Your task to perform on an android device: turn off priority inbox in the gmail app Image 0: 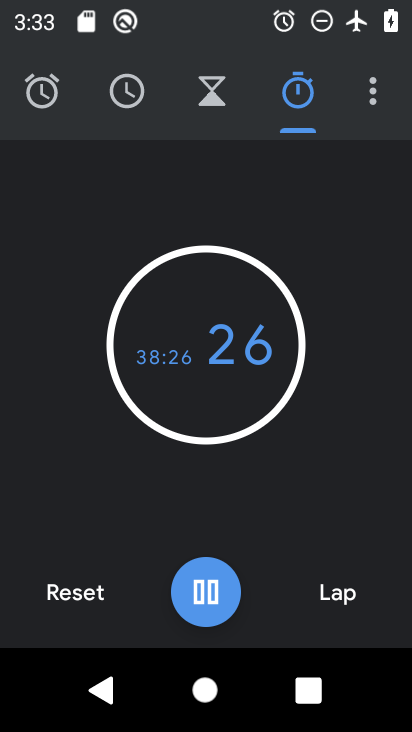
Step 0: press home button
Your task to perform on an android device: turn off priority inbox in the gmail app Image 1: 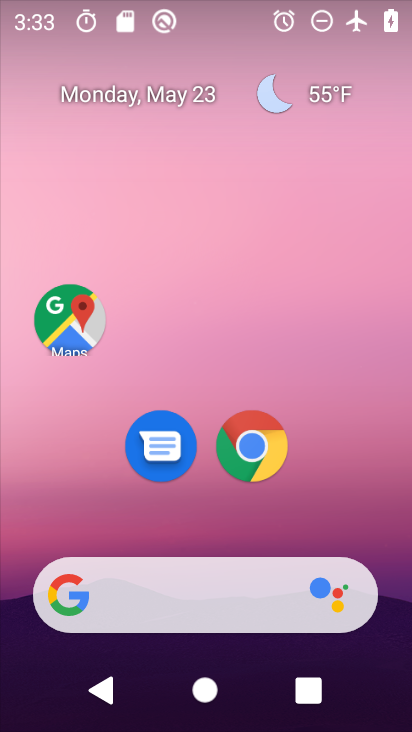
Step 1: drag from (184, 537) to (182, 153)
Your task to perform on an android device: turn off priority inbox in the gmail app Image 2: 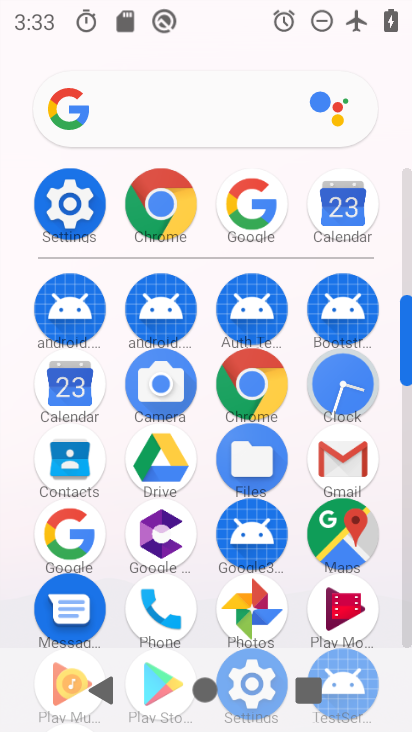
Step 2: click (320, 452)
Your task to perform on an android device: turn off priority inbox in the gmail app Image 3: 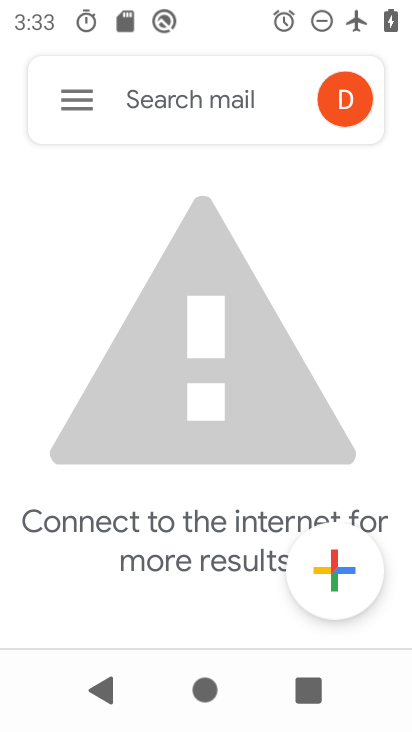
Step 3: click (88, 111)
Your task to perform on an android device: turn off priority inbox in the gmail app Image 4: 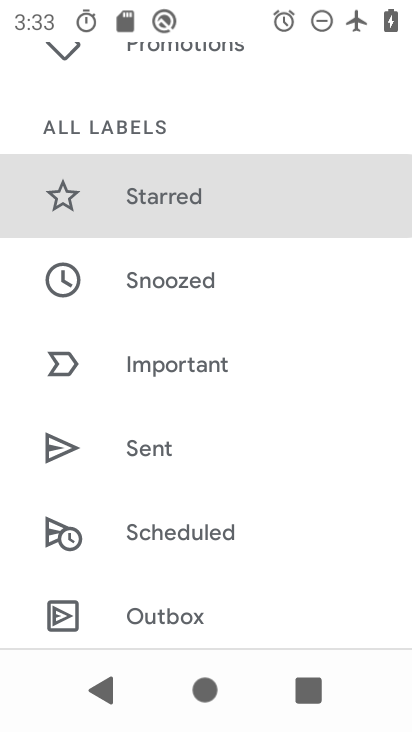
Step 4: drag from (237, 568) to (200, 274)
Your task to perform on an android device: turn off priority inbox in the gmail app Image 5: 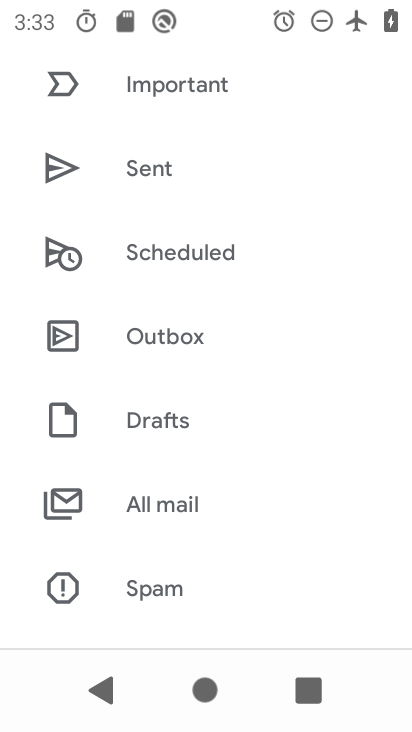
Step 5: drag from (224, 583) to (194, 319)
Your task to perform on an android device: turn off priority inbox in the gmail app Image 6: 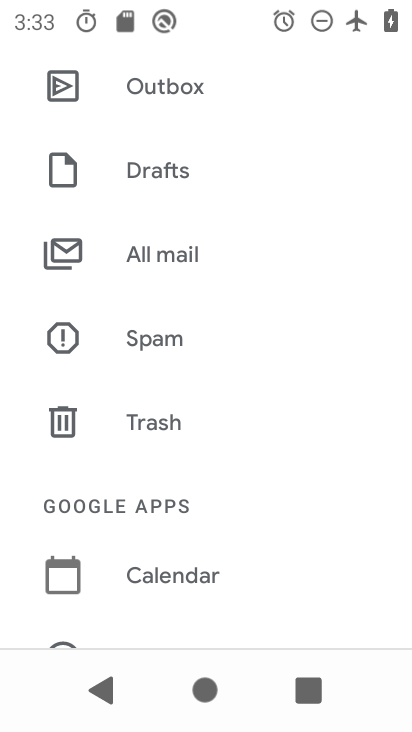
Step 6: drag from (217, 544) to (180, 306)
Your task to perform on an android device: turn off priority inbox in the gmail app Image 7: 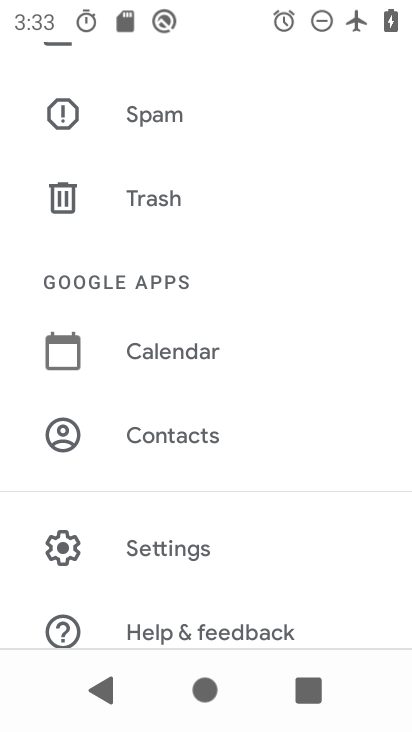
Step 7: click (193, 550)
Your task to perform on an android device: turn off priority inbox in the gmail app Image 8: 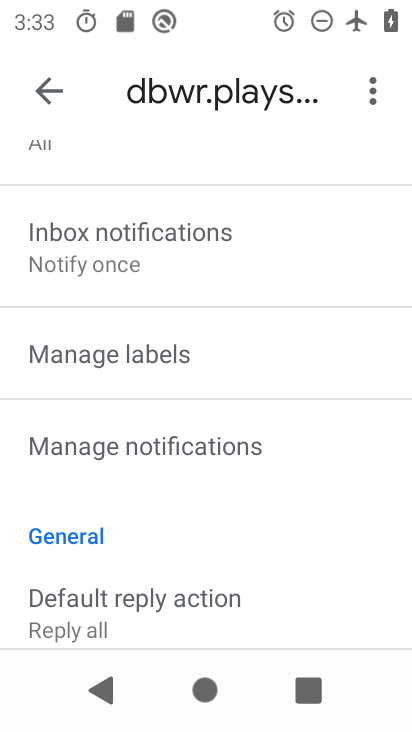
Step 8: drag from (185, 241) to (241, 485)
Your task to perform on an android device: turn off priority inbox in the gmail app Image 9: 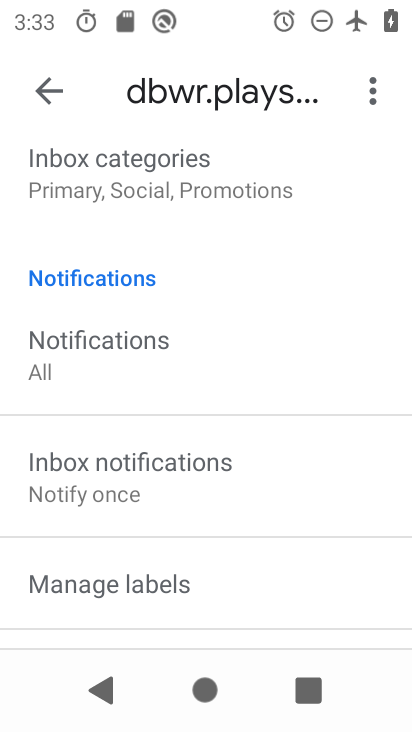
Step 9: drag from (200, 562) to (200, 454)
Your task to perform on an android device: turn off priority inbox in the gmail app Image 10: 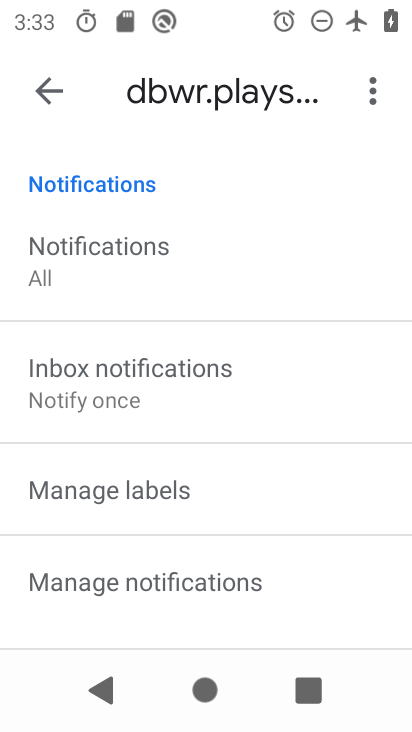
Step 10: drag from (205, 228) to (221, 545)
Your task to perform on an android device: turn off priority inbox in the gmail app Image 11: 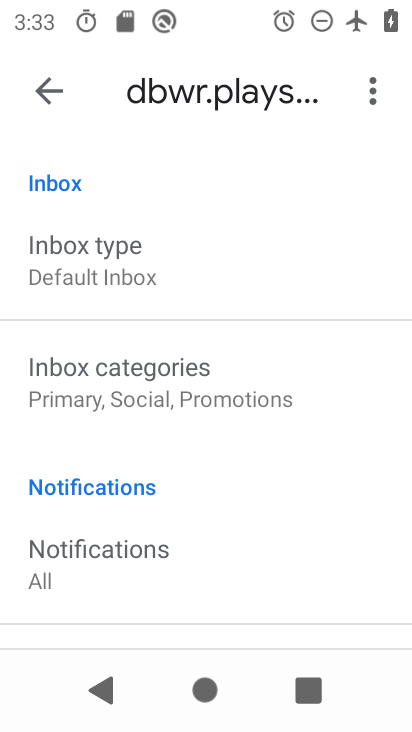
Step 11: click (133, 280)
Your task to perform on an android device: turn off priority inbox in the gmail app Image 12: 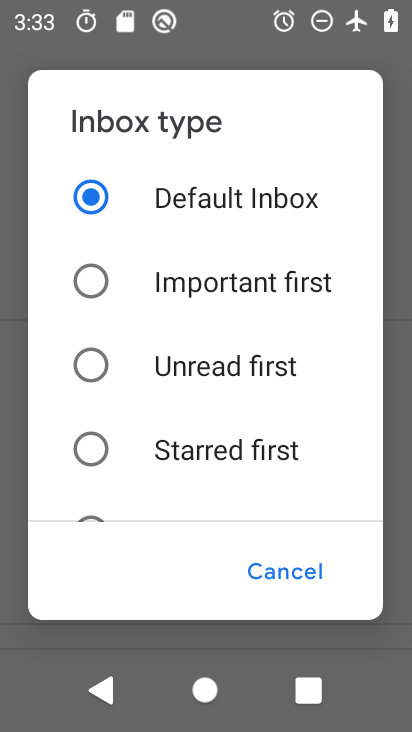
Step 12: task complete